Your task to perform on an android device: Search for flights from Mexico city to Sydney Image 0: 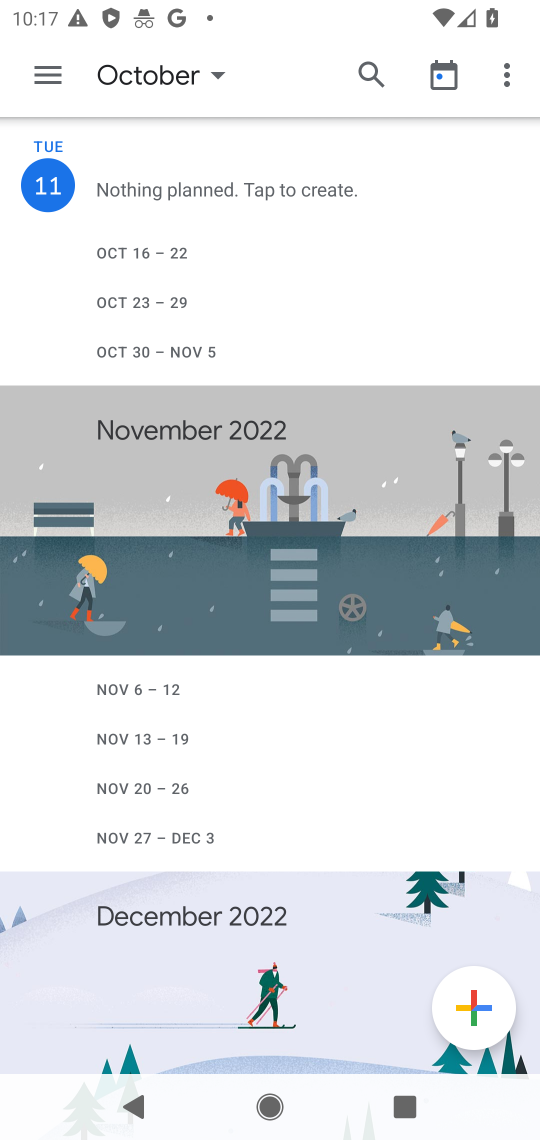
Step 0: press home button
Your task to perform on an android device: Search for flights from Mexico city to Sydney Image 1: 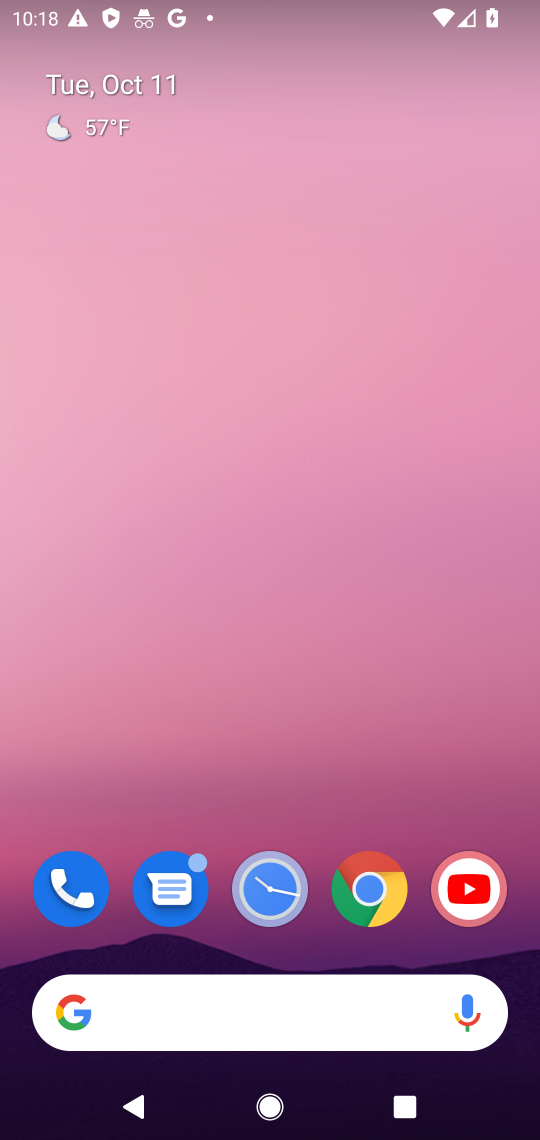
Step 1: click (278, 1019)
Your task to perform on an android device: Search for flights from Mexico city to Sydney Image 2: 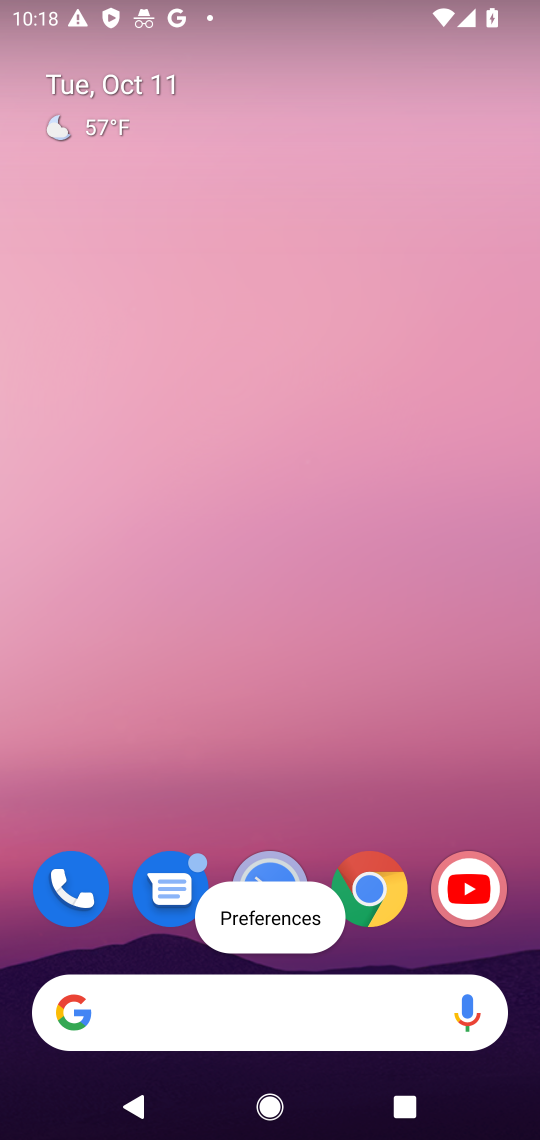
Step 2: click (170, 1034)
Your task to perform on an android device: Search for flights from Mexico city to Sydney Image 3: 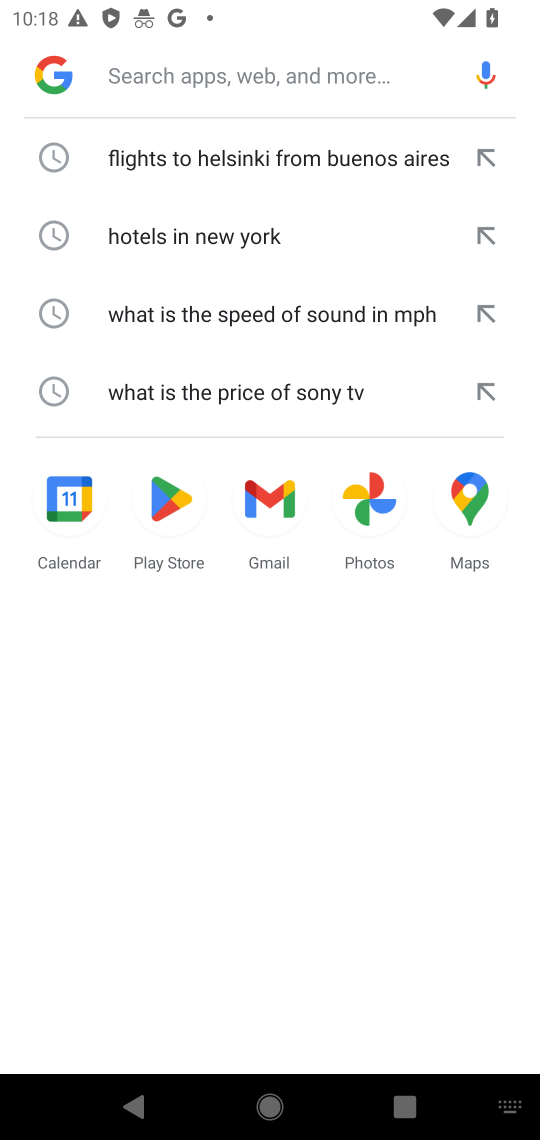
Step 3: click (130, 91)
Your task to perform on an android device: Search for flights from Mexico city to Sydney Image 4: 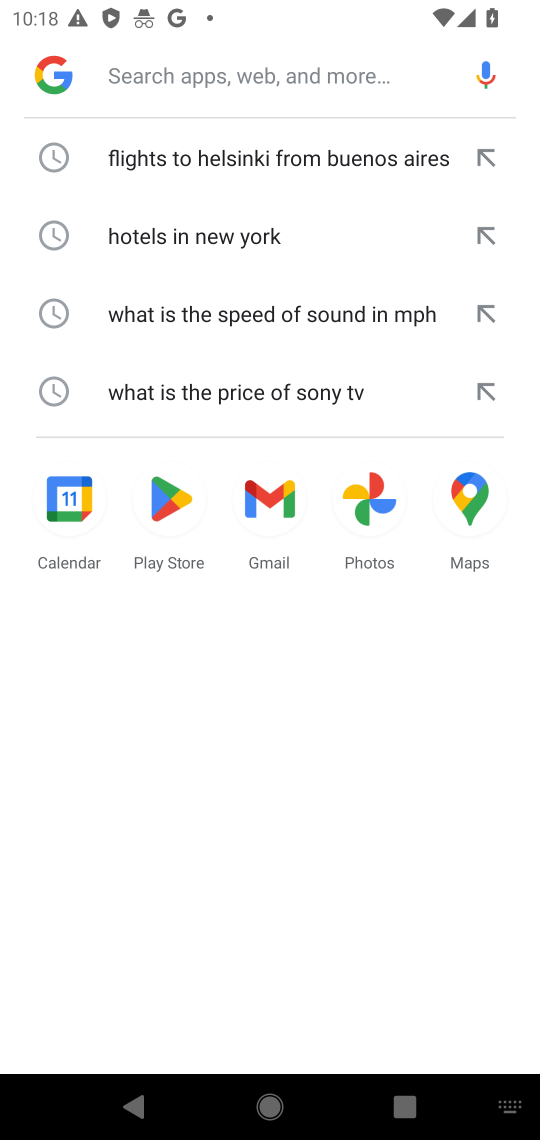
Step 4: type "flights from Mexico city to Sydney"
Your task to perform on an android device: Search for flights from Mexico city to Sydney Image 5: 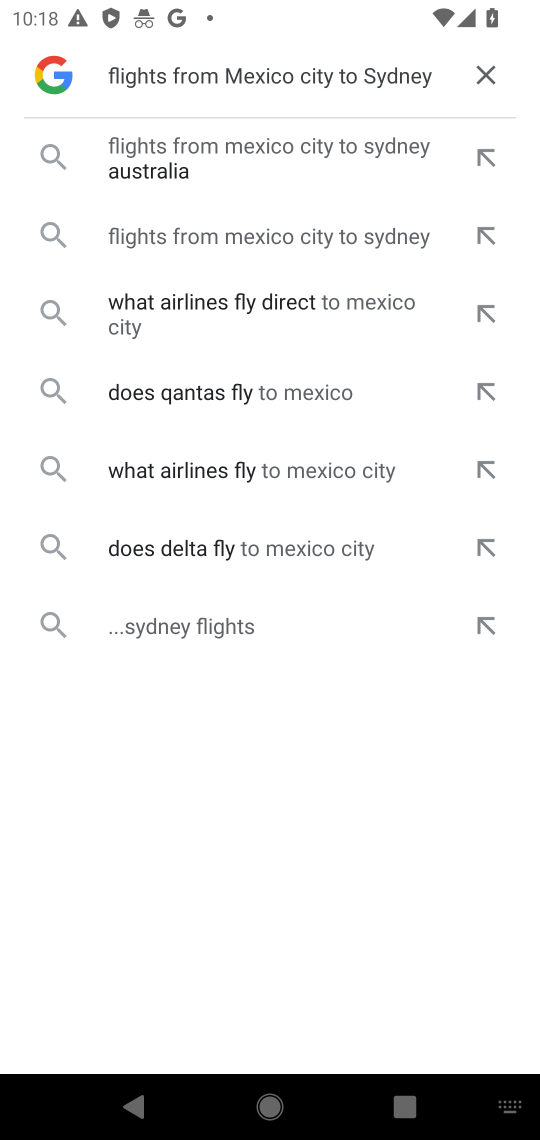
Step 5: click (195, 152)
Your task to perform on an android device: Search for flights from Mexico city to Sydney Image 6: 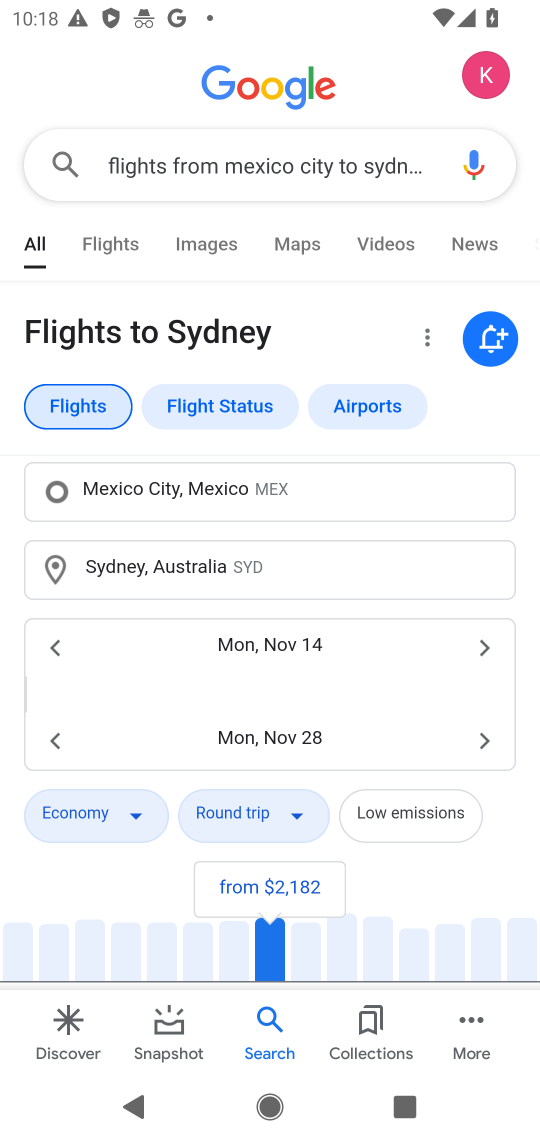
Step 6: task complete